Your task to perform on an android device: turn notification dots off Image 0: 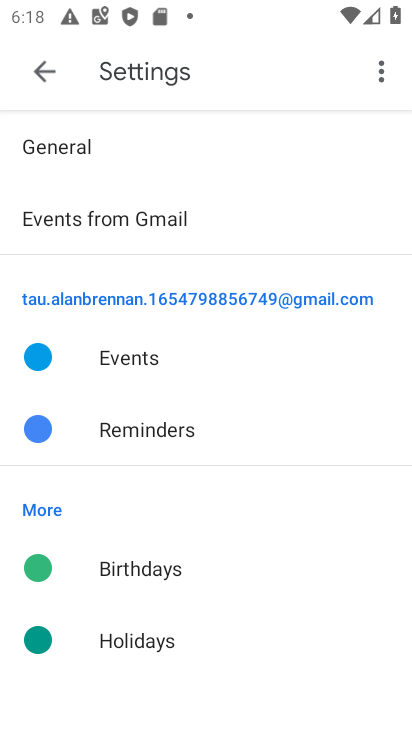
Step 0: press home button
Your task to perform on an android device: turn notification dots off Image 1: 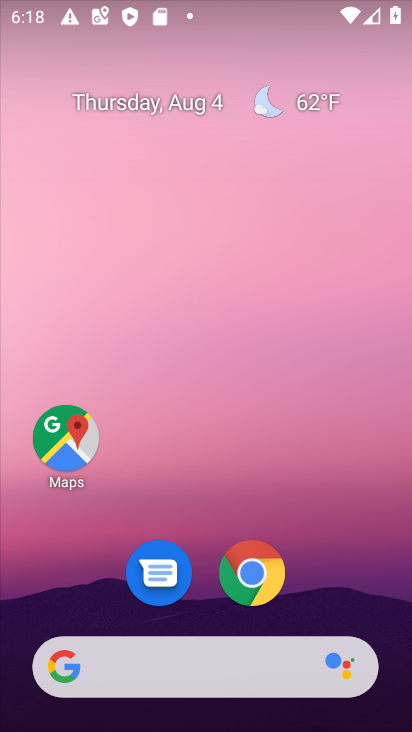
Step 1: drag from (211, 586) to (234, 73)
Your task to perform on an android device: turn notification dots off Image 2: 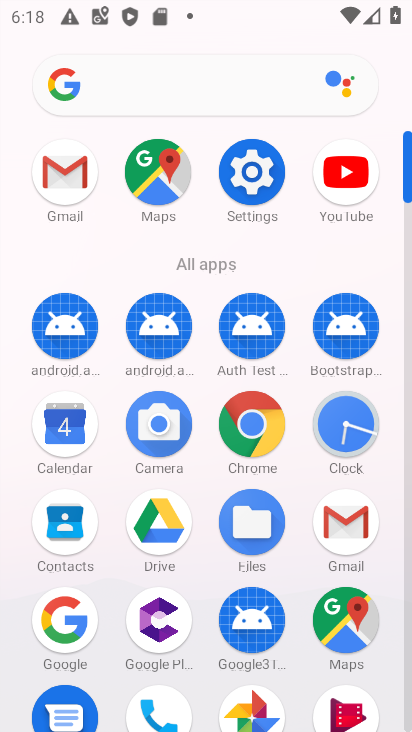
Step 2: click (249, 179)
Your task to perform on an android device: turn notification dots off Image 3: 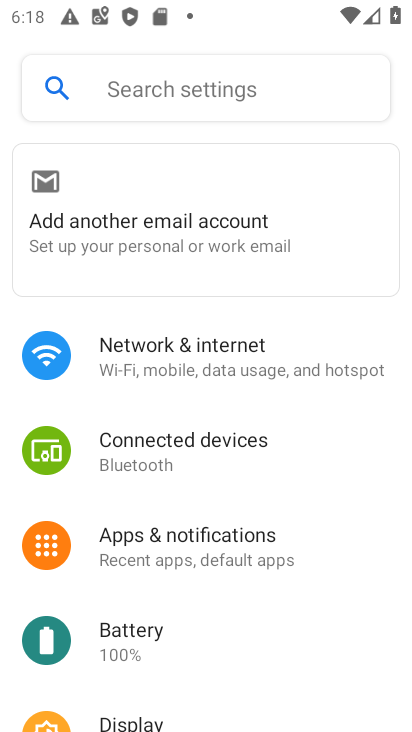
Step 3: drag from (261, 652) to (263, 143)
Your task to perform on an android device: turn notification dots off Image 4: 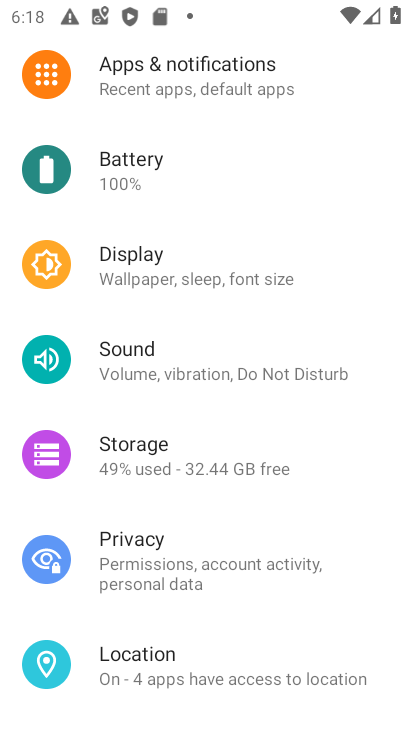
Step 4: drag from (272, 196) to (248, 726)
Your task to perform on an android device: turn notification dots off Image 5: 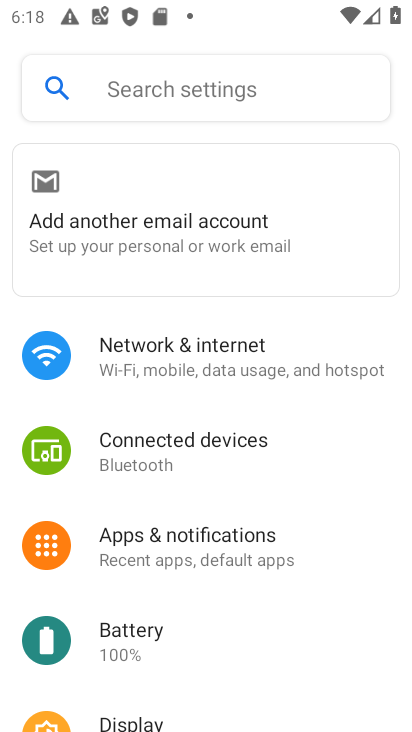
Step 5: click (185, 543)
Your task to perform on an android device: turn notification dots off Image 6: 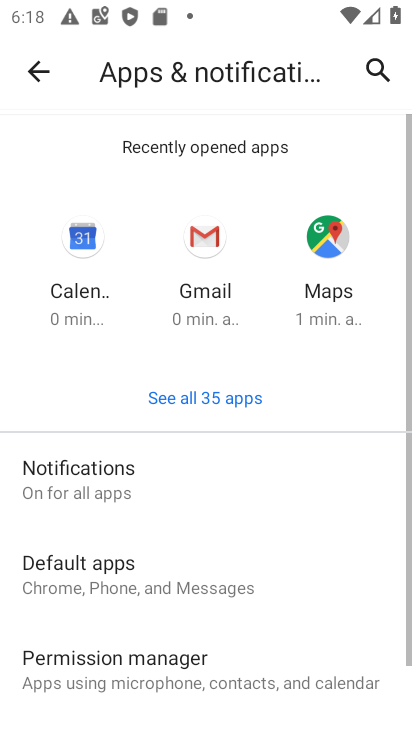
Step 6: click (71, 462)
Your task to perform on an android device: turn notification dots off Image 7: 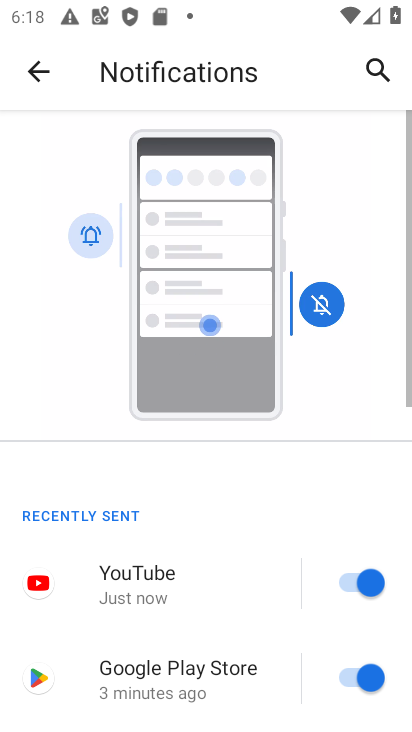
Step 7: drag from (292, 545) to (211, 29)
Your task to perform on an android device: turn notification dots off Image 8: 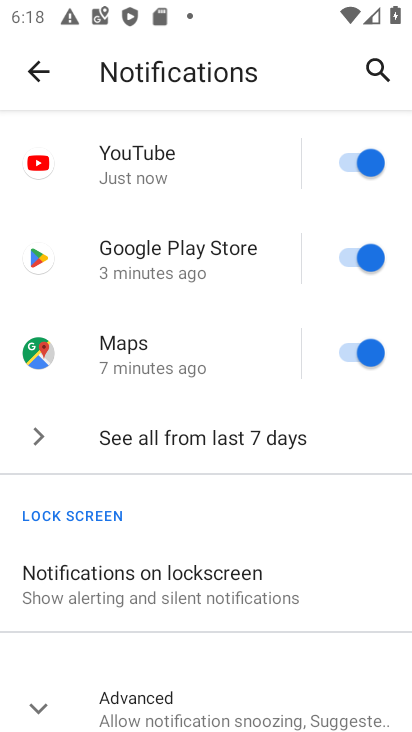
Step 8: click (138, 700)
Your task to perform on an android device: turn notification dots off Image 9: 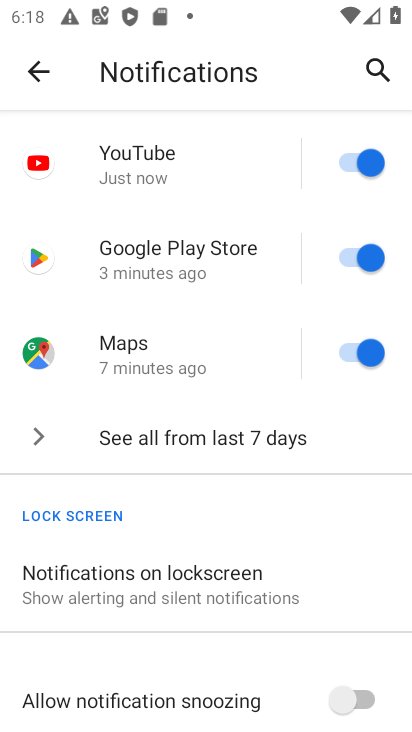
Step 9: drag from (214, 651) to (256, 225)
Your task to perform on an android device: turn notification dots off Image 10: 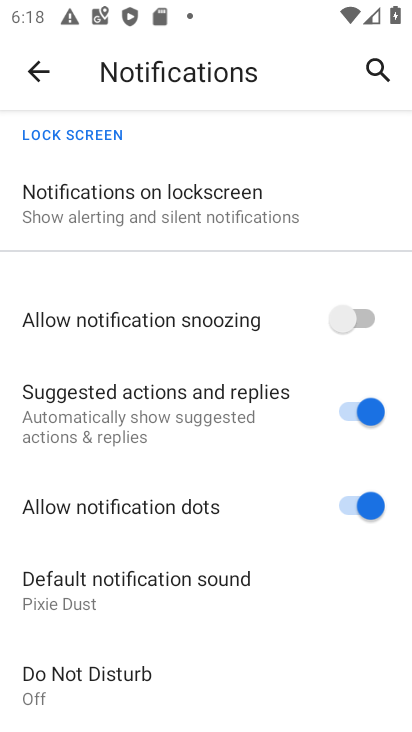
Step 10: click (362, 502)
Your task to perform on an android device: turn notification dots off Image 11: 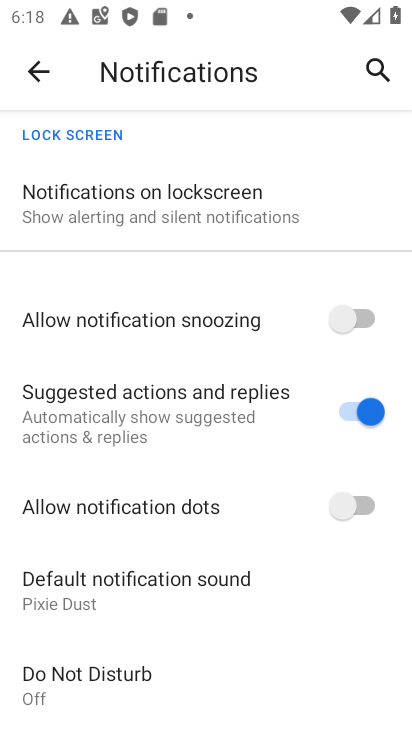
Step 11: task complete